Your task to perform on an android device: Search for the best rated book on Goodreads. Image 0: 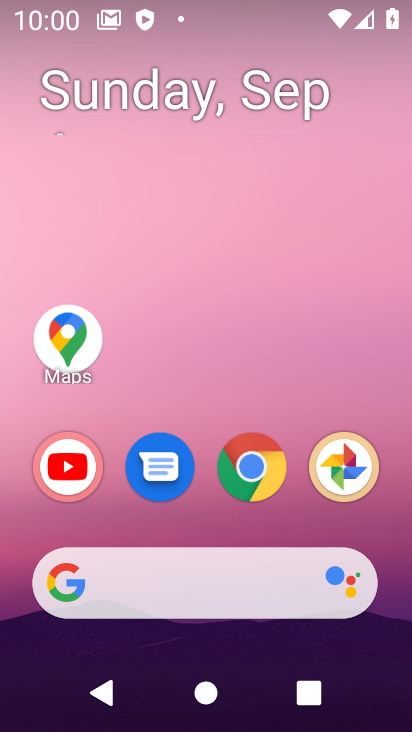
Step 0: click (278, 461)
Your task to perform on an android device: Search for the best rated book on Goodreads. Image 1: 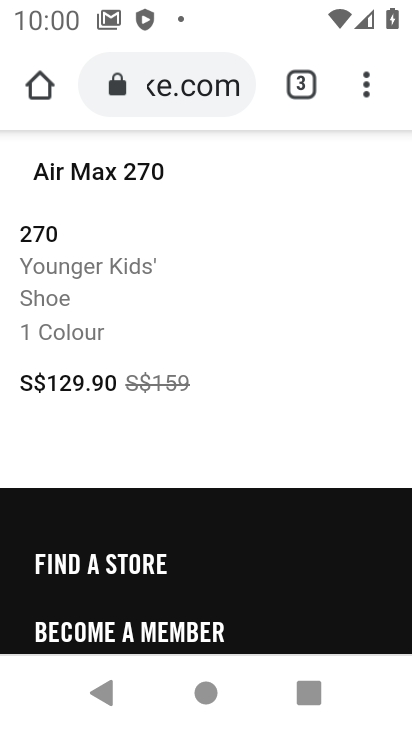
Step 1: click (203, 86)
Your task to perform on an android device: Search for the best rated book on Goodreads. Image 2: 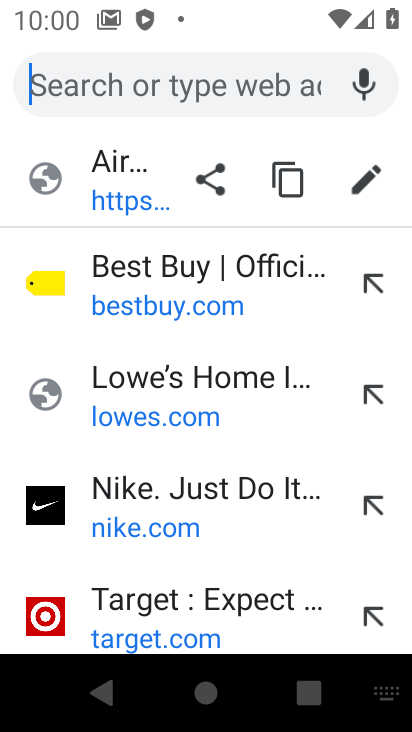
Step 2: type "goodreads"
Your task to perform on an android device: Search for the best rated book on Goodreads. Image 3: 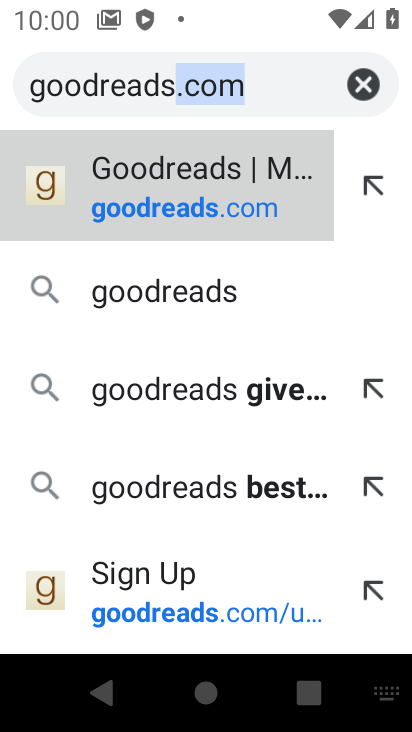
Step 3: type ""
Your task to perform on an android device: Search for the best rated book on Goodreads. Image 4: 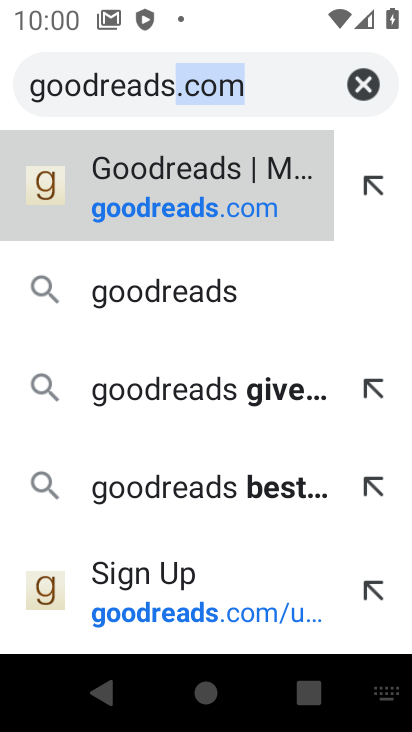
Step 4: click (177, 207)
Your task to perform on an android device: Search for the best rated book on Goodreads. Image 5: 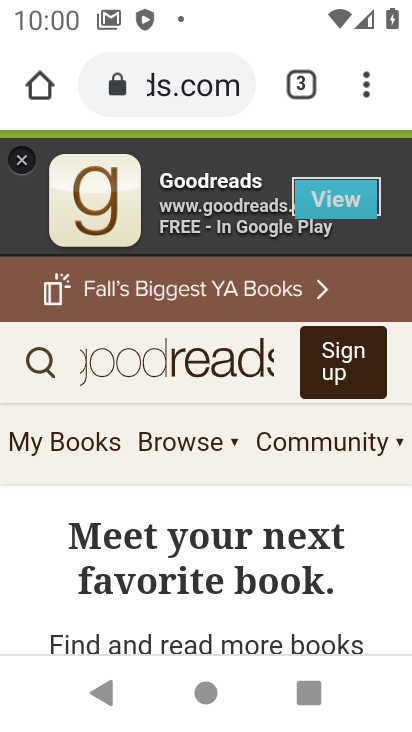
Step 5: click (110, 352)
Your task to perform on an android device: Search for the best rated book on Goodreads. Image 6: 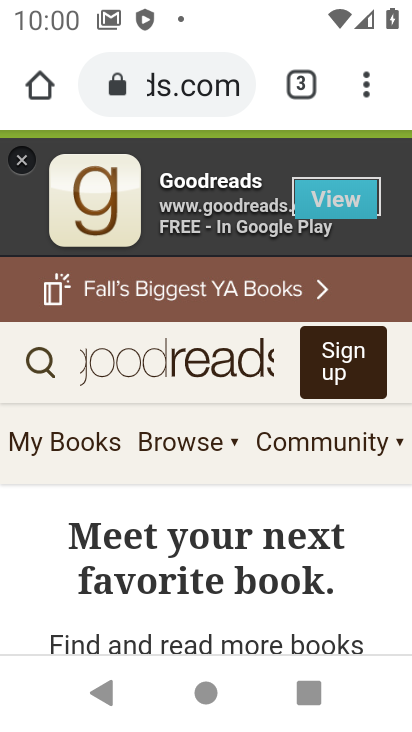
Step 6: click (134, 361)
Your task to perform on an android device: Search for the best rated book on Goodreads. Image 7: 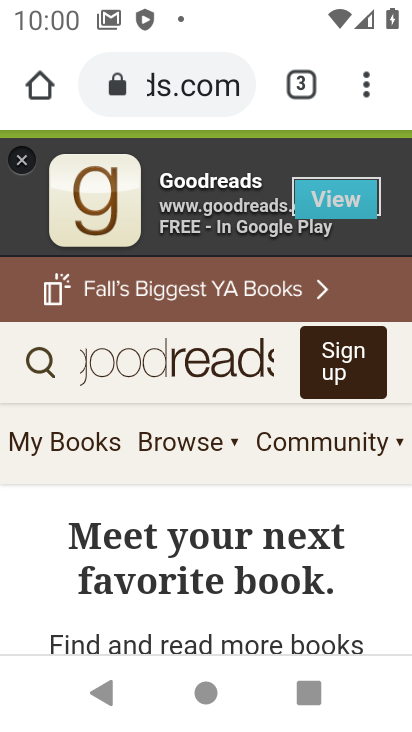
Step 7: click (37, 357)
Your task to perform on an android device: Search for the best rated book on Goodreads. Image 8: 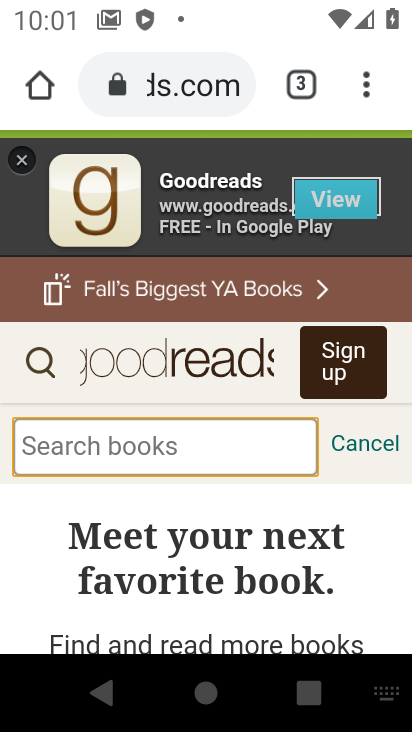
Step 8: type "best book"
Your task to perform on an android device: Search for the best rated book on Goodreads. Image 9: 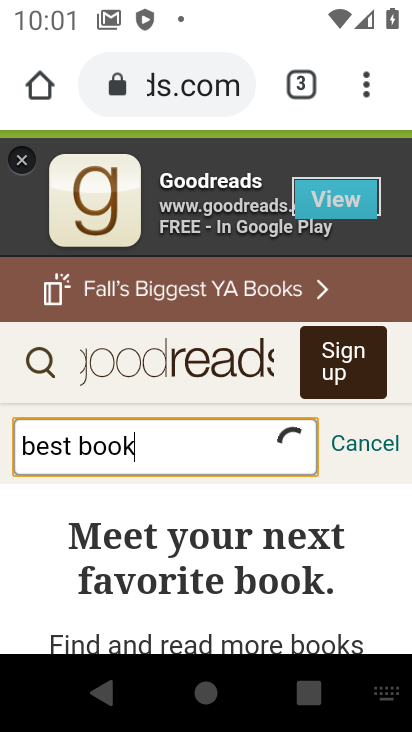
Step 9: type ""
Your task to perform on an android device: Search for the best rated book on Goodreads. Image 10: 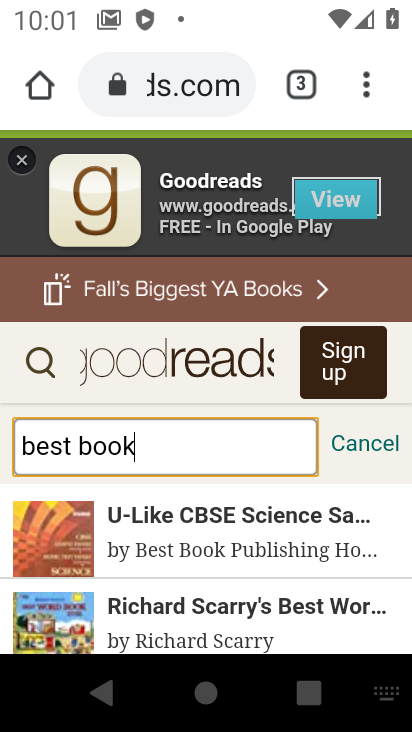
Step 10: drag from (353, 458) to (354, 364)
Your task to perform on an android device: Search for the best rated book on Goodreads. Image 11: 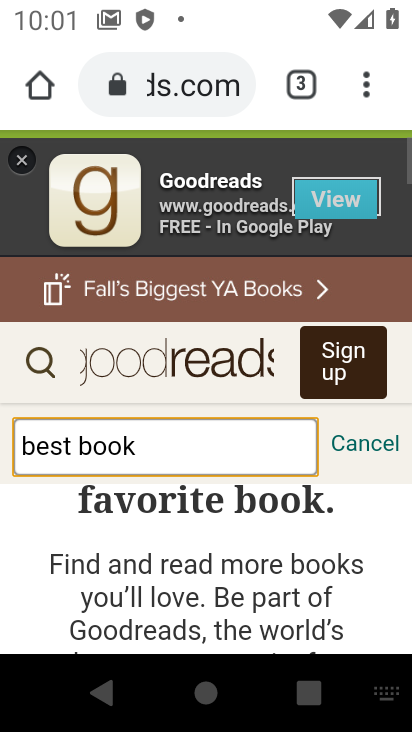
Step 11: drag from (394, 506) to (378, 629)
Your task to perform on an android device: Search for the best rated book on Goodreads. Image 12: 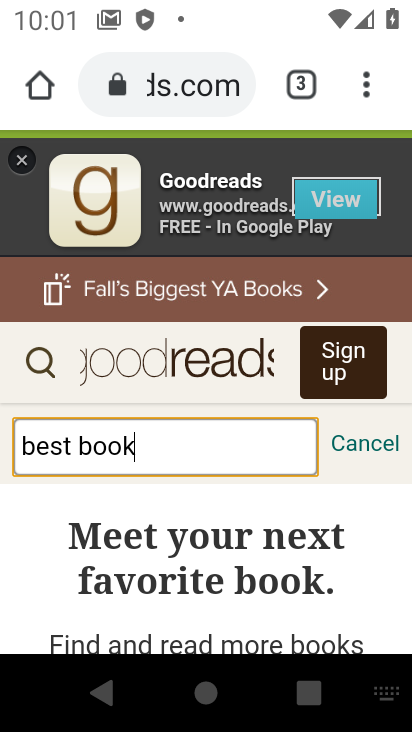
Step 12: drag from (351, 496) to (373, 332)
Your task to perform on an android device: Search for the best rated book on Goodreads. Image 13: 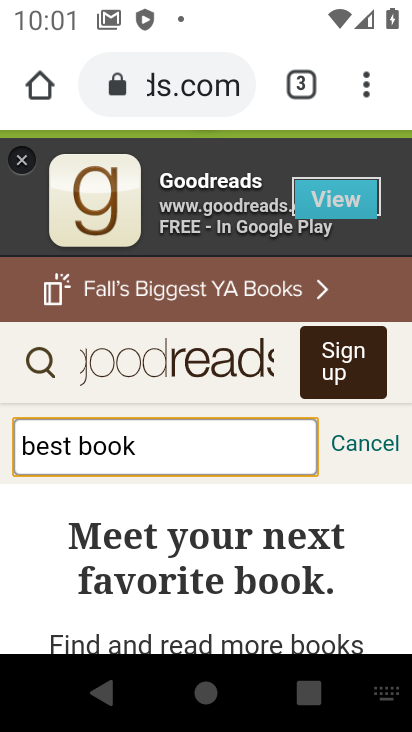
Step 13: drag from (340, 611) to (340, 391)
Your task to perform on an android device: Search for the best rated book on Goodreads. Image 14: 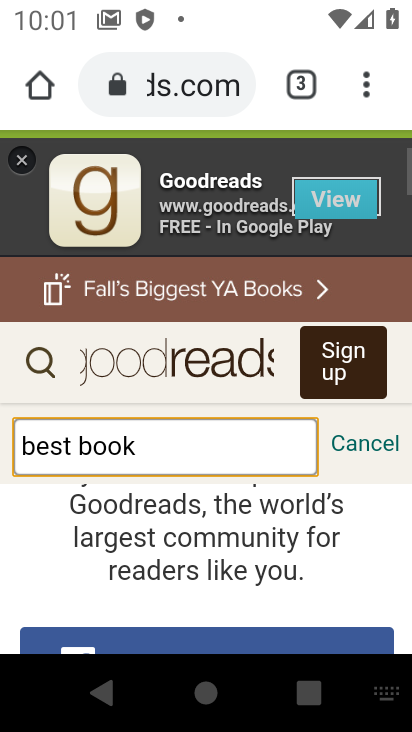
Step 14: drag from (366, 544) to (380, 459)
Your task to perform on an android device: Search for the best rated book on Goodreads. Image 15: 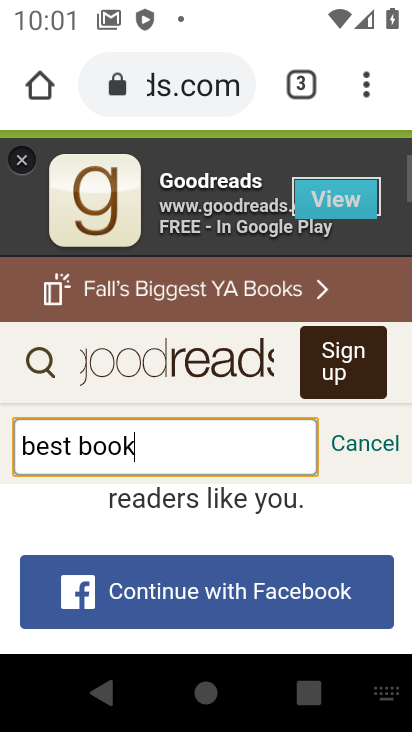
Step 15: drag from (369, 617) to (356, 420)
Your task to perform on an android device: Search for the best rated book on Goodreads. Image 16: 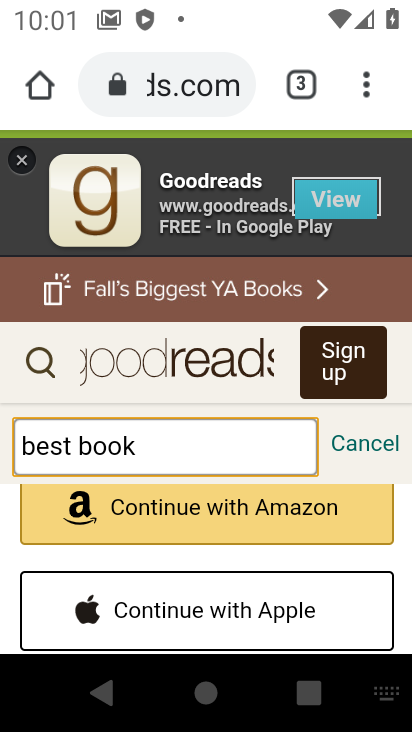
Step 16: drag from (404, 595) to (404, 414)
Your task to perform on an android device: Search for the best rated book on Goodreads. Image 17: 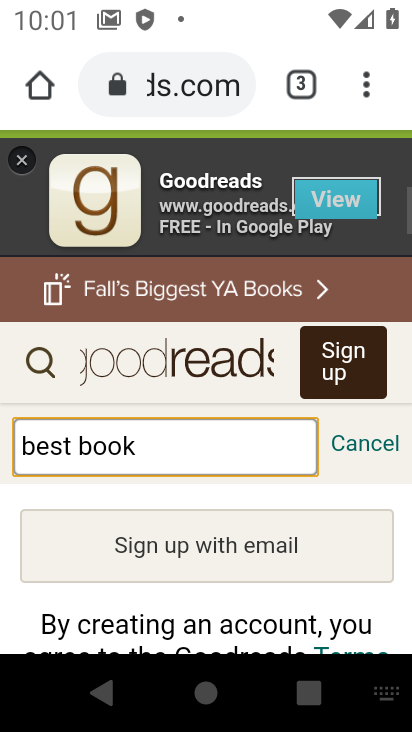
Step 17: drag from (344, 459) to (349, 425)
Your task to perform on an android device: Search for the best rated book on Goodreads. Image 18: 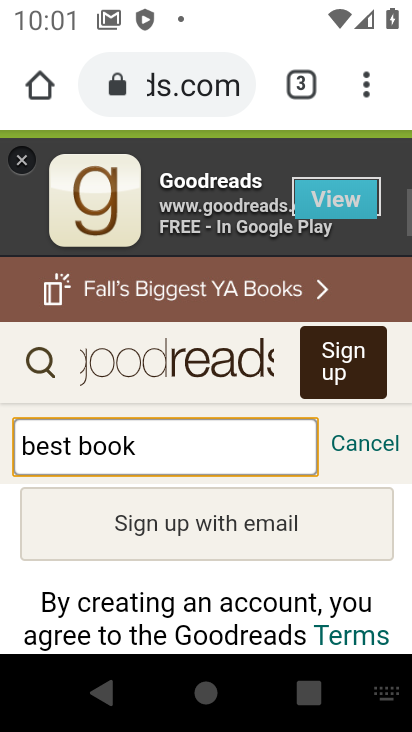
Step 18: drag from (270, 612) to (381, 409)
Your task to perform on an android device: Search for the best rated book on Goodreads. Image 19: 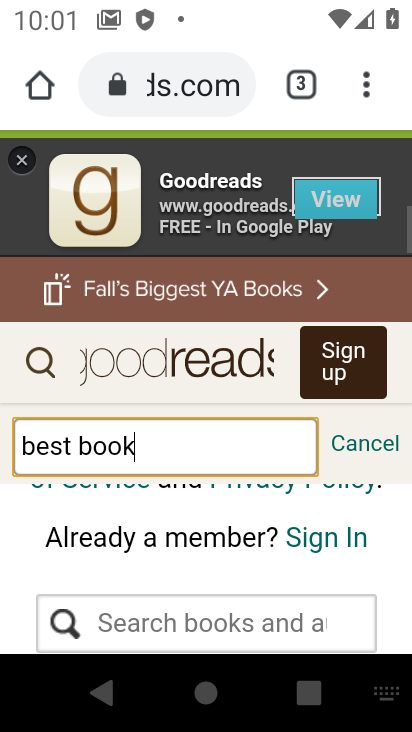
Step 19: drag from (309, 602) to (344, 465)
Your task to perform on an android device: Search for the best rated book on Goodreads. Image 20: 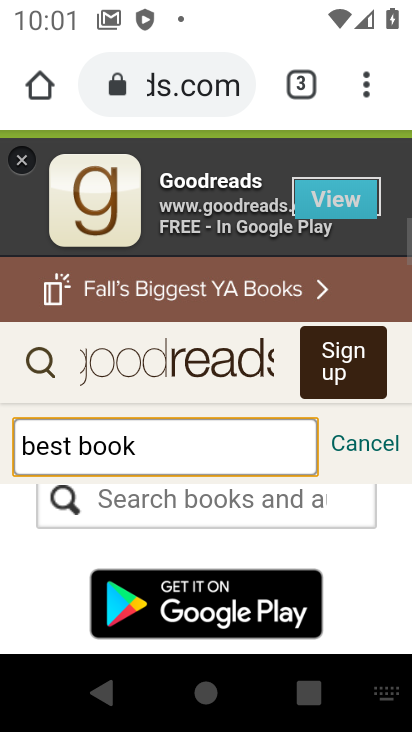
Step 20: drag from (248, 636) to (338, 439)
Your task to perform on an android device: Search for the best rated book on Goodreads. Image 21: 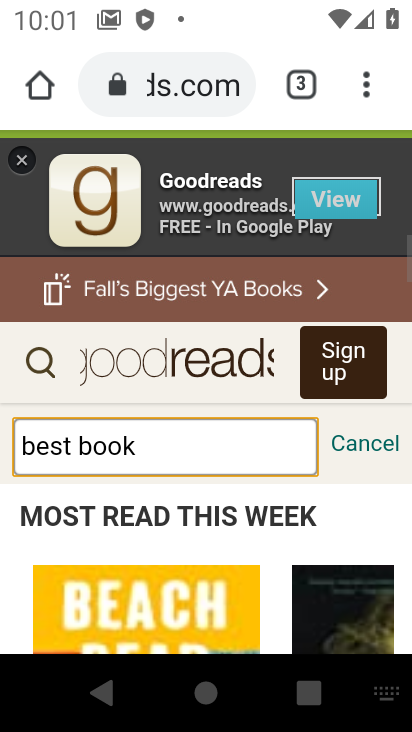
Step 21: drag from (360, 555) to (368, 468)
Your task to perform on an android device: Search for the best rated book on Goodreads. Image 22: 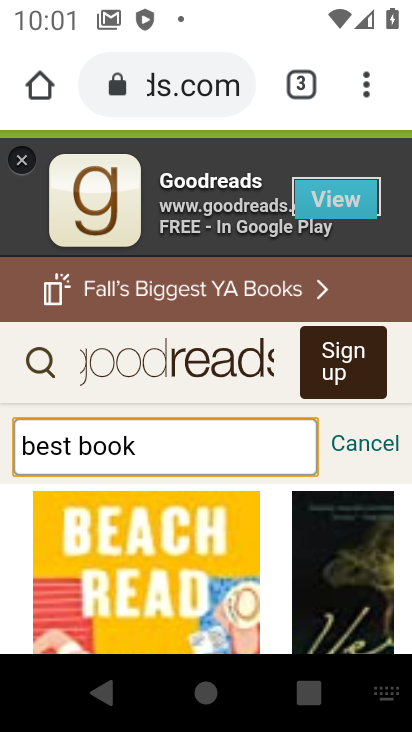
Step 22: drag from (225, 603) to (293, 280)
Your task to perform on an android device: Search for the best rated book on Goodreads. Image 23: 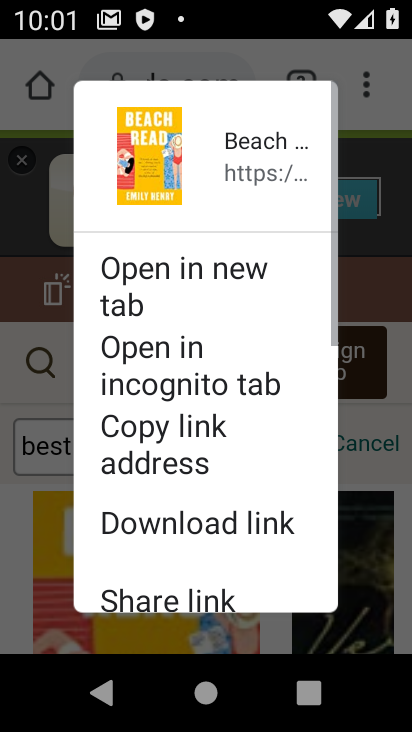
Step 23: click (386, 589)
Your task to perform on an android device: Search for the best rated book on Goodreads. Image 24: 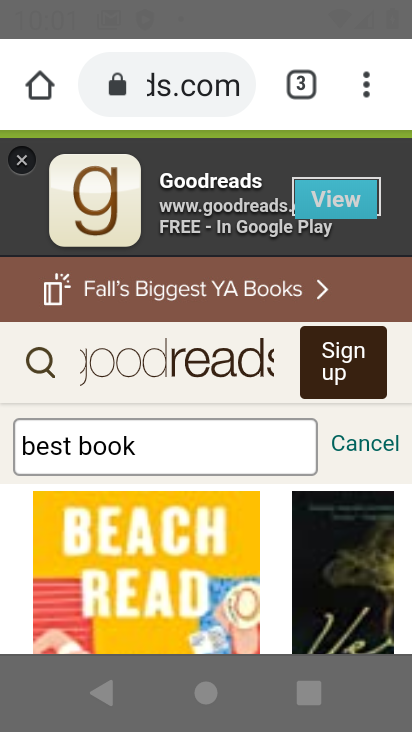
Step 24: drag from (398, 434) to (404, 370)
Your task to perform on an android device: Search for the best rated book on Goodreads. Image 25: 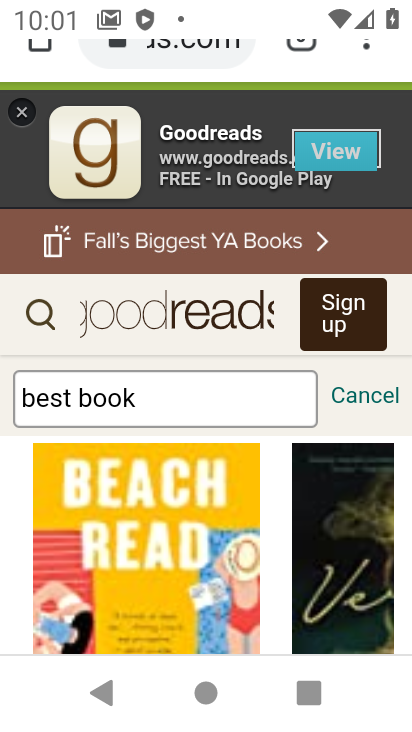
Step 25: drag from (358, 531) to (353, 219)
Your task to perform on an android device: Search for the best rated book on Goodreads. Image 26: 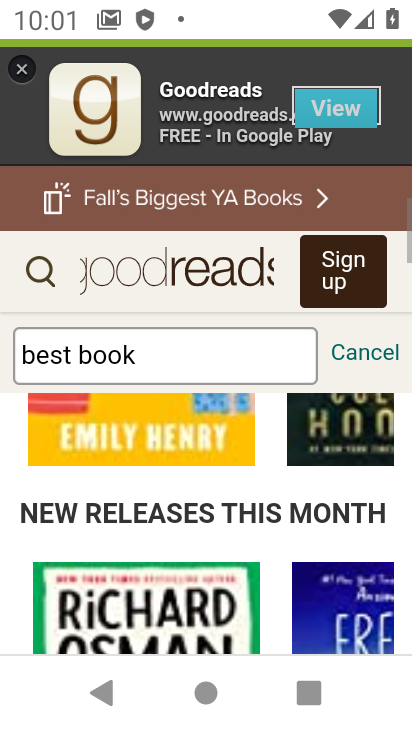
Step 26: drag from (318, 450) to (323, 303)
Your task to perform on an android device: Search for the best rated book on Goodreads. Image 27: 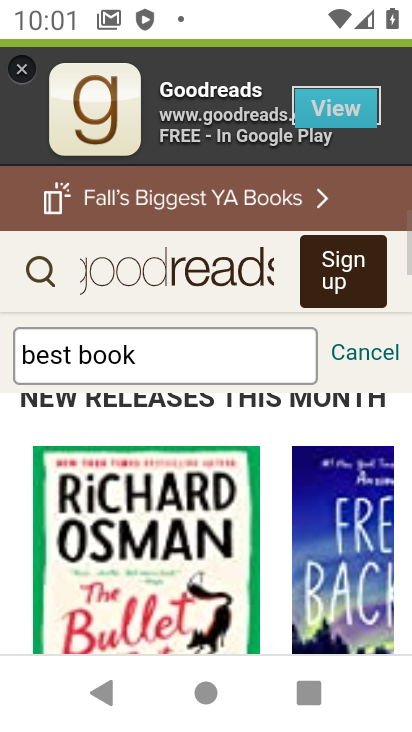
Step 27: drag from (275, 608) to (295, 378)
Your task to perform on an android device: Search for the best rated book on Goodreads. Image 28: 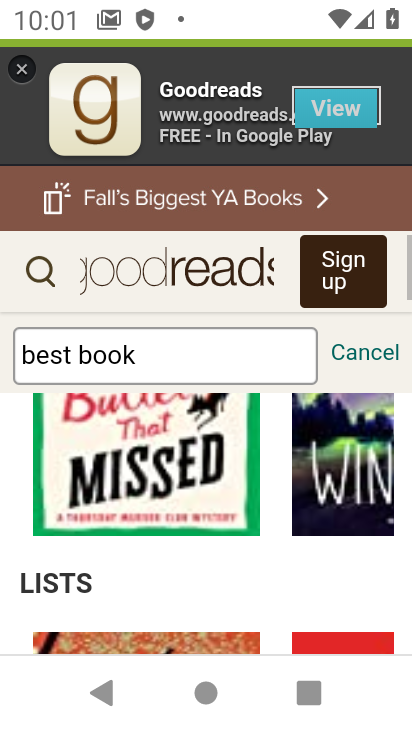
Step 28: drag from (291, 563) to (294, 416)
Your task to perform on an android device: Search for the best rated book on Goodreads. Image 29: 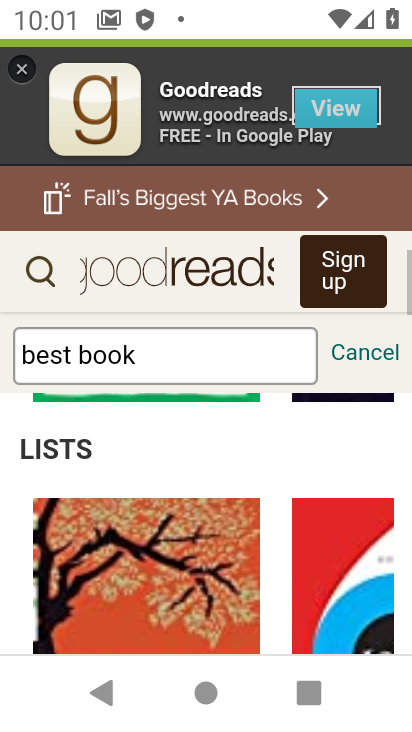
Step 29: drag from (280, 508) to (279, 393)
Your task to perform on an android device: Search for the best rated book on Goodreads. Image 30: 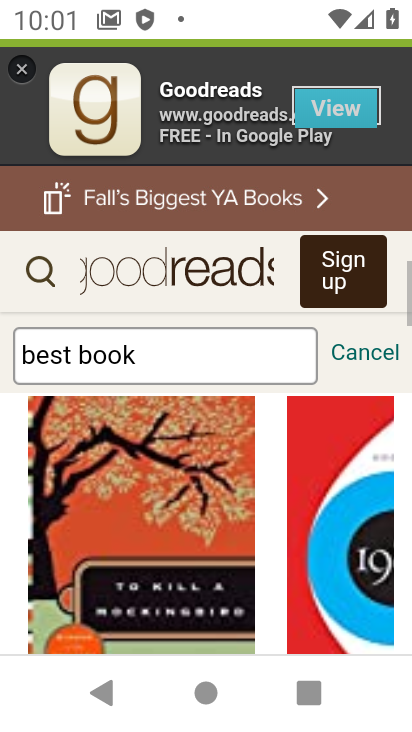
Step 30: drag from (257, 633) to (251, 431)
Your task to perform on an android device: Search for the best rated book on Goodreads. Image 31: 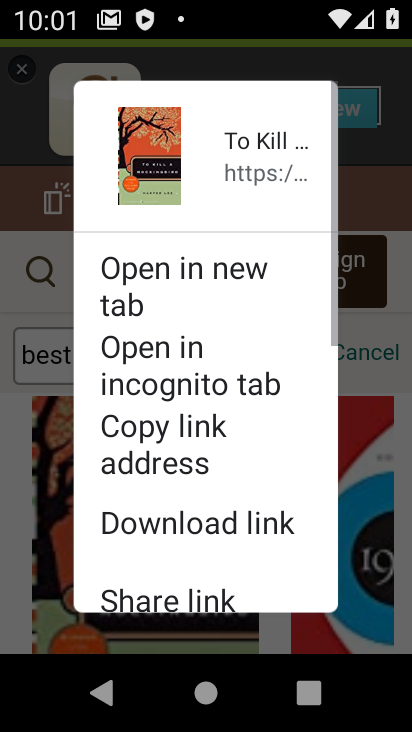
Step 31: click (376, 565)
Your task to perform on an android device: Search for the best rated book on Goodreads. Image 32: 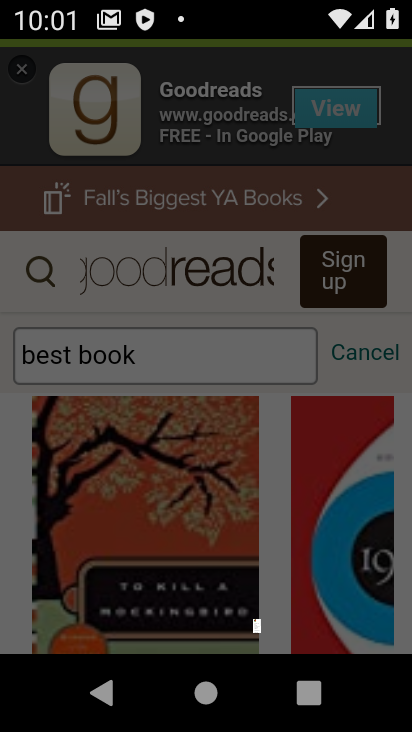
Step 32: drag from (398, 590) to (404, 405)
Your task to perform on an android device: Search for the best rated book on Goodreads. Image 33: 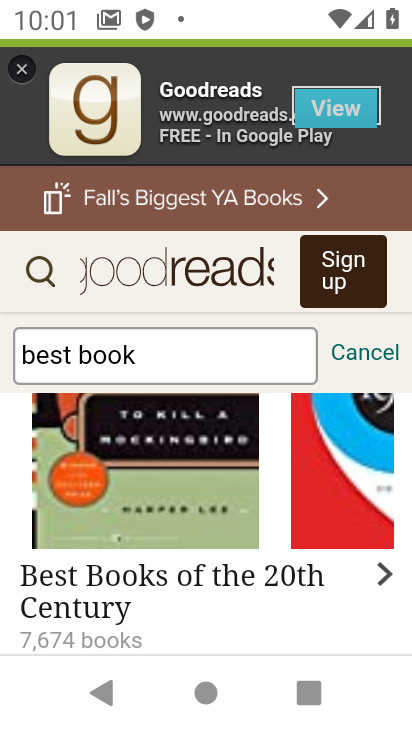
Step 33: drag from (365, 612) to (411, 378)
Your task to perform on an android device: Search for the best rated book on Goodreads. Image 34: 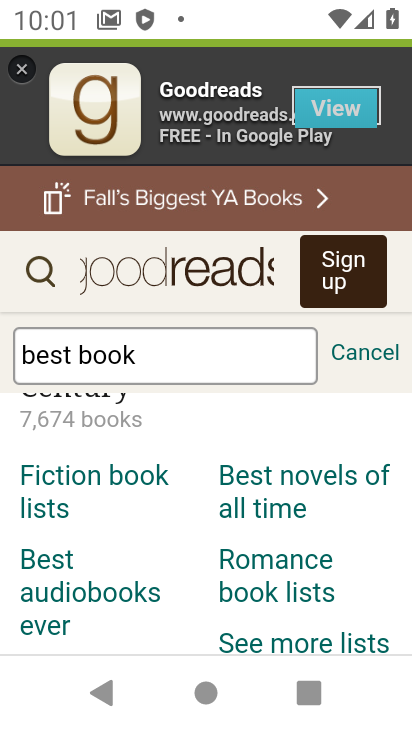
Step 34: drag from (391, 538) to (347, 717)
Your task to perform on an android device: Search for the best rated book on Goodreads. Image 35: 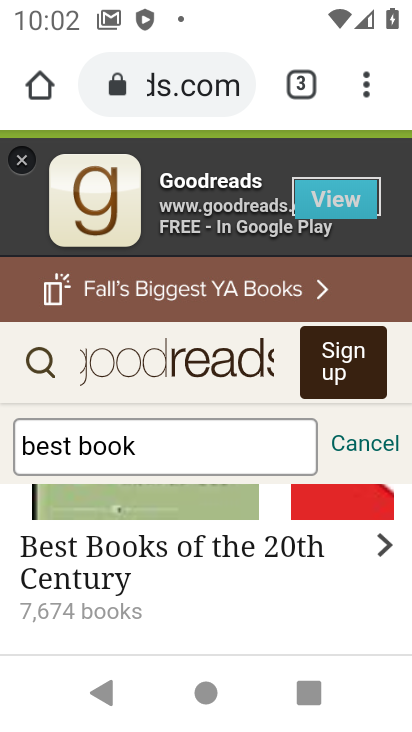
Step 35: click (187, 513)
Your task to perform on an android device: Search for the best rated book on Goodreads. Image 36: 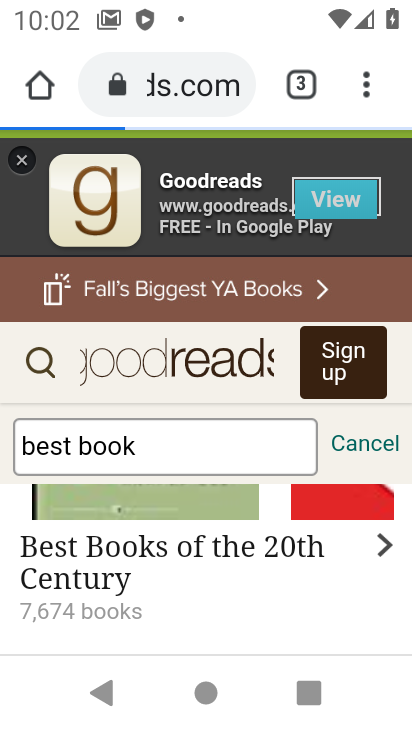
Step 36: click (153, 506)
Your task to perform on an android device: Search for the best rated book on Goodreads. Image 37: 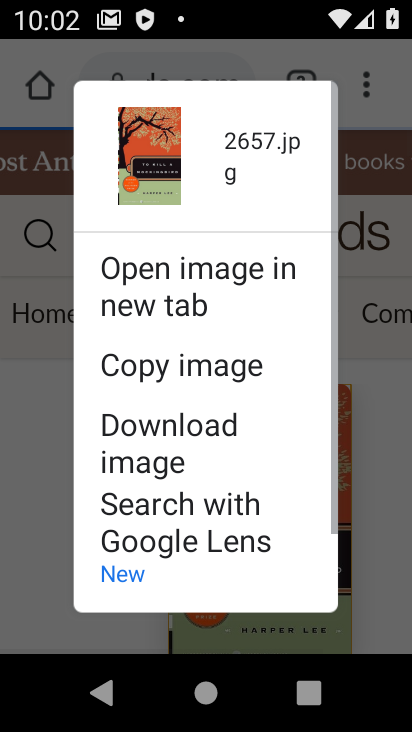
Step 37: drag from (388, 506) to (378, 607)
Your task to perform on an android device: Search for the best rated book on Goodreads. Image 38: 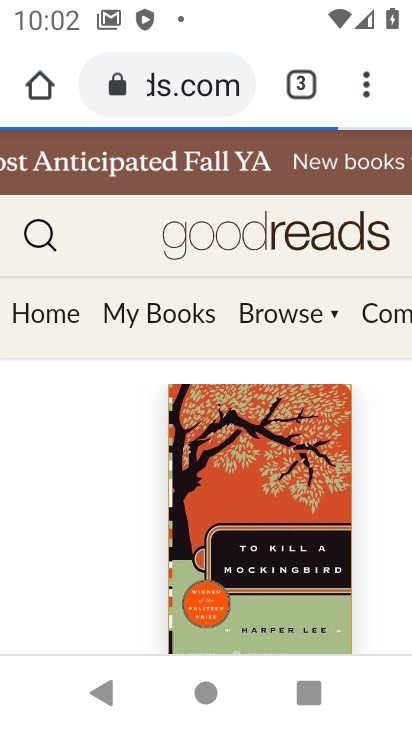
Step 38: drag from (338, 561) to (329, 288)
Your task to perform on an android device: Search for the best rated book on Goodreads. Image 39: 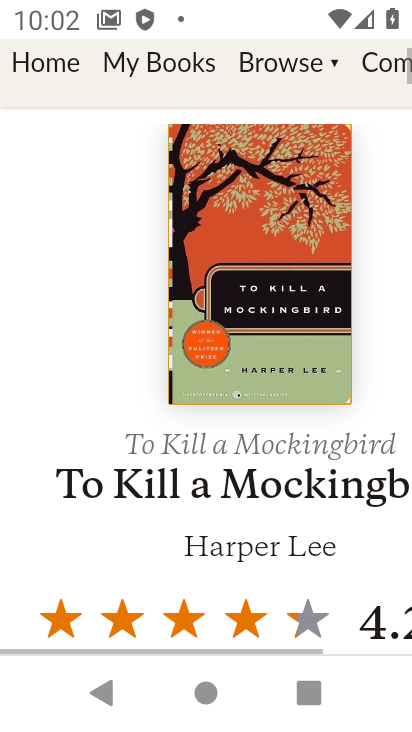
Step 39: drag from (228, 573) to (230, 199)
Your task to perform on an android device: Search for the best rated book on Goodreads. Image 40: 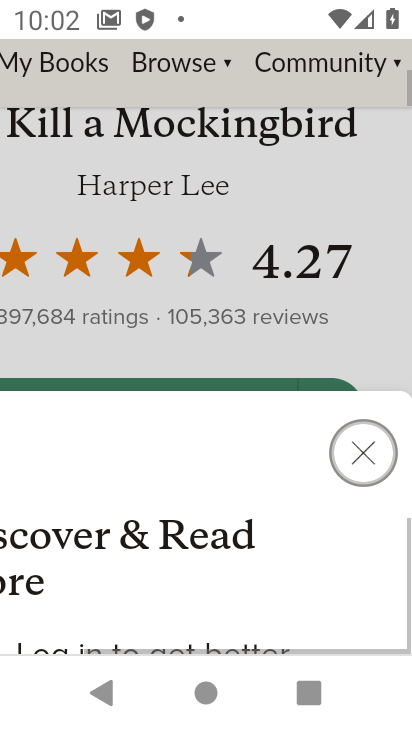
Step 40: click (109, 400)
Your task to perform on an android device: Search for the best rated book on Goodreads. Image 41: 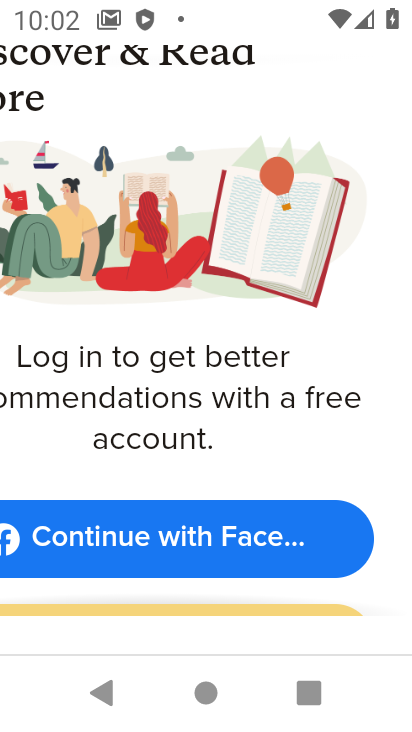
Step 41: drag from (220, 385) to (196, 221)
Your task to perform on an android device: Search for the best rated book on Goodreads. Image 42: 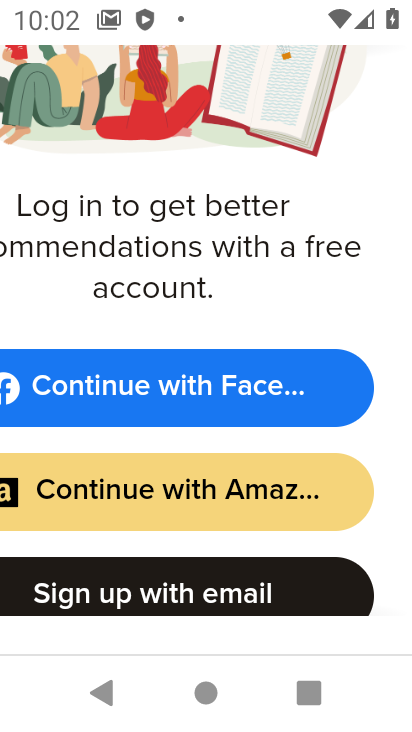
Step 42: drag from (399, 512) to (343, 207)
Your task to perform on an android device: Search for the best rated book on Goodreads. Image 43: 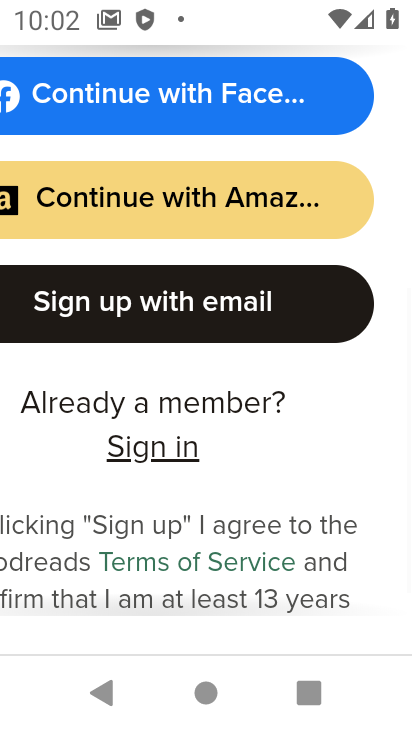
Step 43: drag from (222, 475) to (248, 164)
Your task to perform on an android device: Search for the best rated book on Goodreads. Image 44: 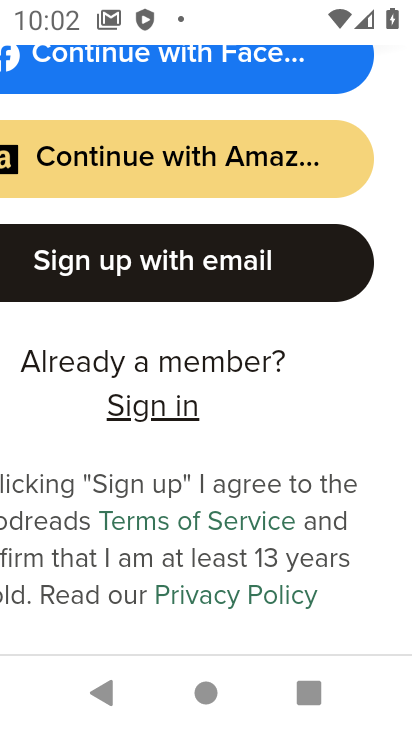
Step 44: drag from (244, 516) to (244, 219)
Your task to perform on an android device: Search for the best rated book on Goodreads. Image 45: 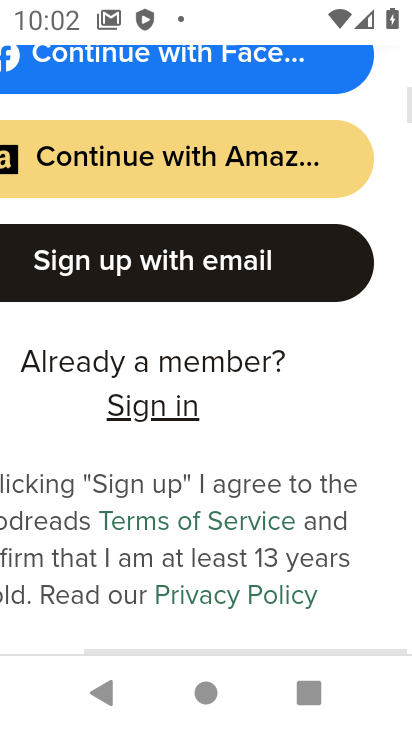
Step 45: drag from (348, 309) to (392, 705)
Your task to perform on an android device: Search for the best rated book on Goodreads. Image 46: 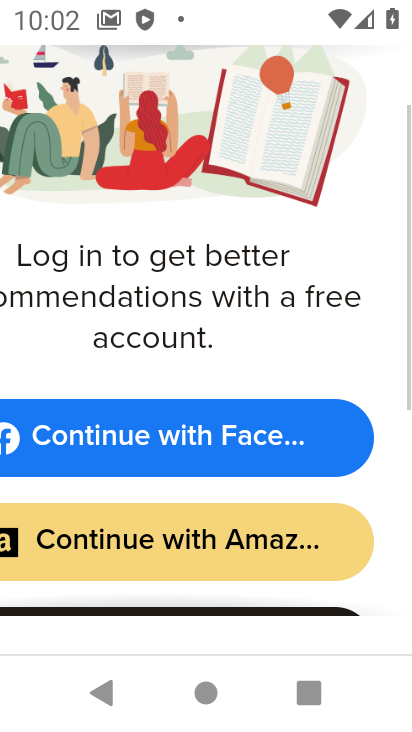
Step 46: drag from (353, 375) to (398, 653)
Your task to perform on an android device: Search for the best rated book on Goodreads. Image 47: 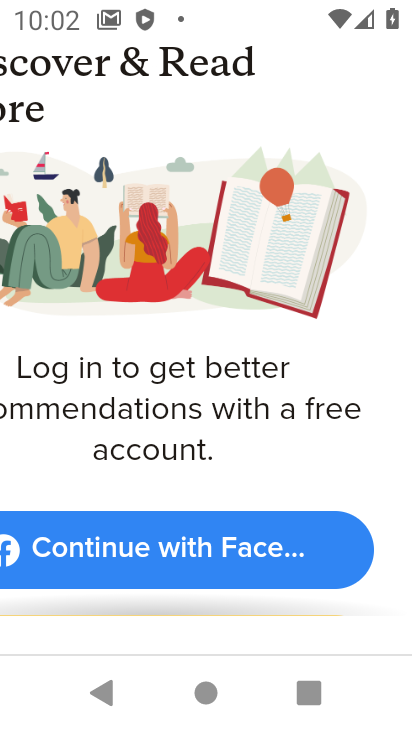
Step 47: drag from (324, 261) to (366, 619)
Your task to perform on an android device: Search for the best rated book on Goodreads. Image 48: 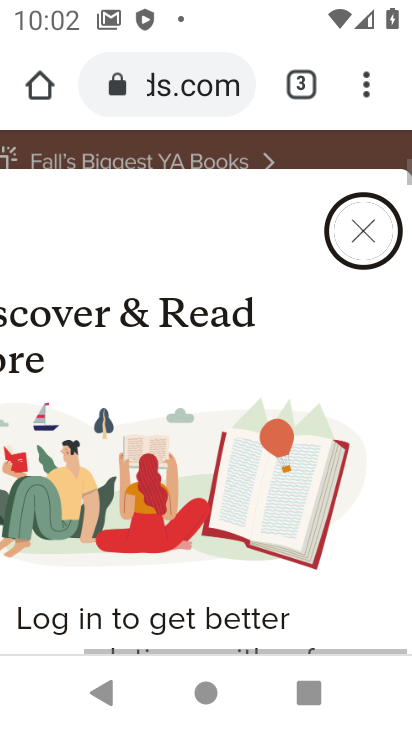
Step 48: drag from (339, 373) to (367, 635)
Your task to perform on an android device: Search for the best rated book on Goodreads. Image 49: 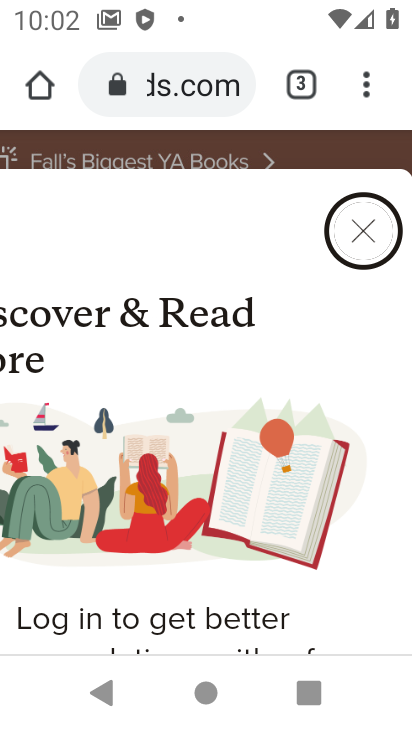
Step 49: drag from (322, 485) to (312, 246)
Your task to perform on an android device: Search for the best rated book on Goodreads. Image 50: 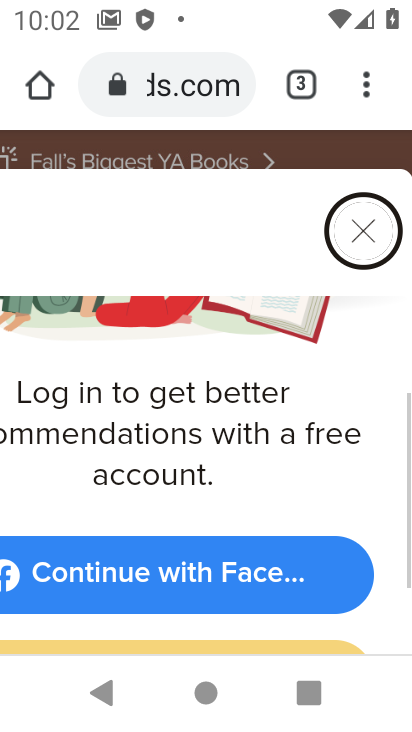
Step 50: drag from (207, 308) to (197, 244)
Your task to perform on an android device: Search for the best rated book on Goodreads. Image 51: 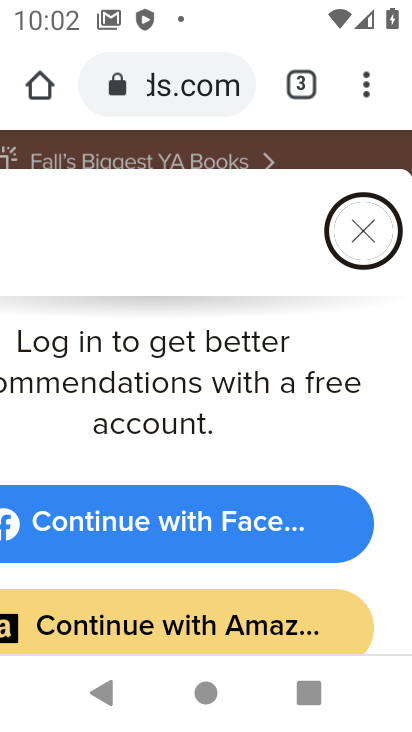
Step 51: click (363, 226)
Your task to perform on an android device: Search for the best rated book on Goodreads. Image 52: 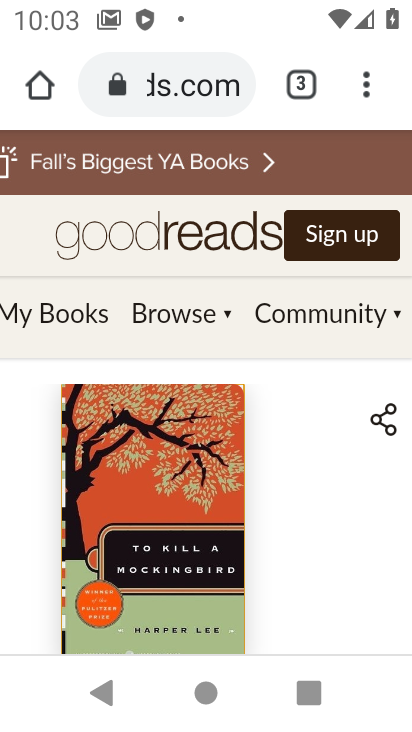
Step 52: task complete